Your task to perform on an android device: Go to battery settings Image 0: 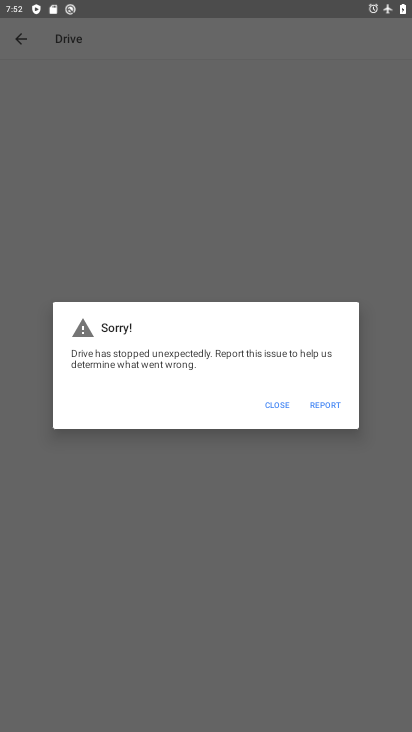
Step 0: press home button
Your task to perform on an android device: Go to battery settings Image 1: 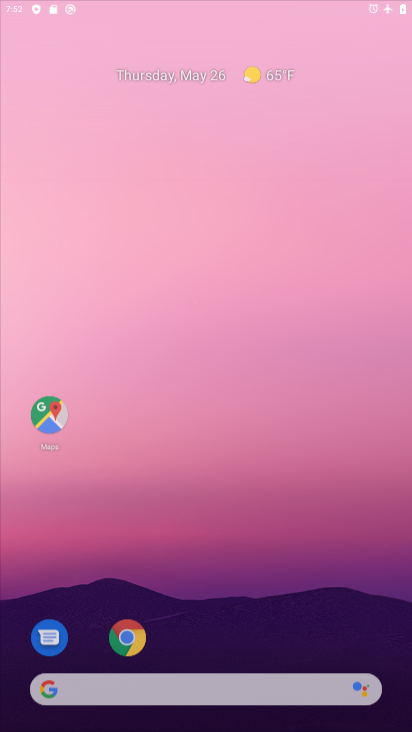
Step 1: drag from (264, 591) to (324, 148)
Your task to perform on an android device: Go to battery settings Image 2: 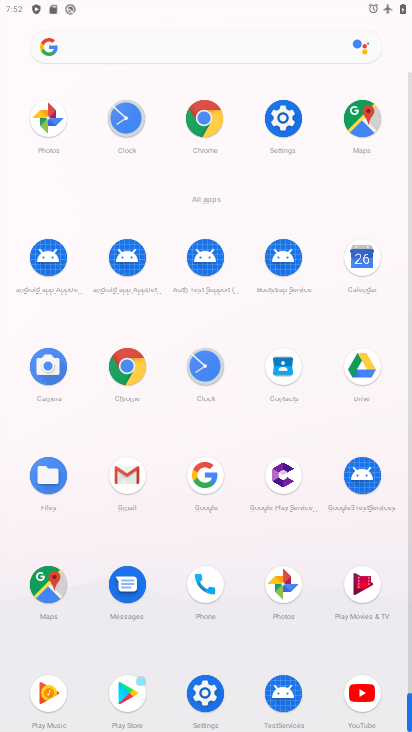
Step 2: click (204, 676)
Your task to perform on an android device: Go to battery settings Image 3: 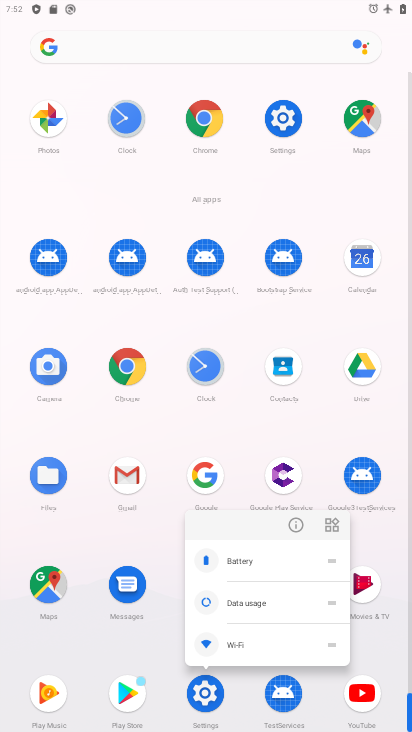
Step 3: click (295, 517)
Your task to perform on an android device: Go to battery settings Image 4: 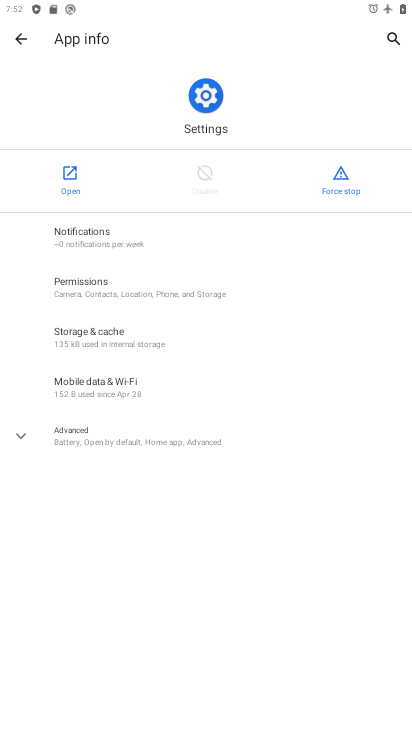
Step 4: click (66, 189)
Your task to perform on an android device: Go to battery settings Image 5: 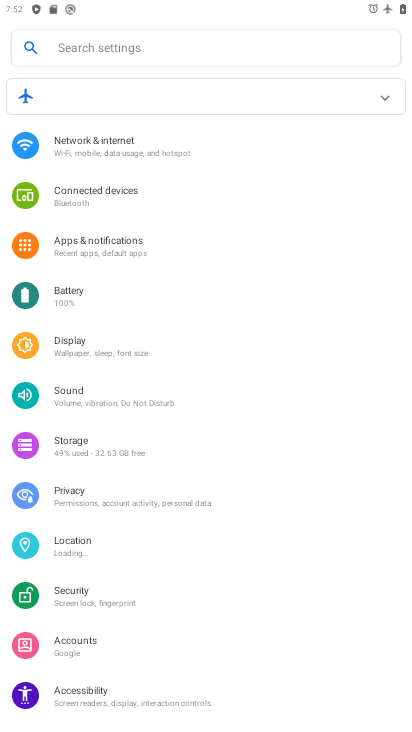
Step 5: click (80, 308)
Your task to perform on an android device: Go to battery settings Image 6: 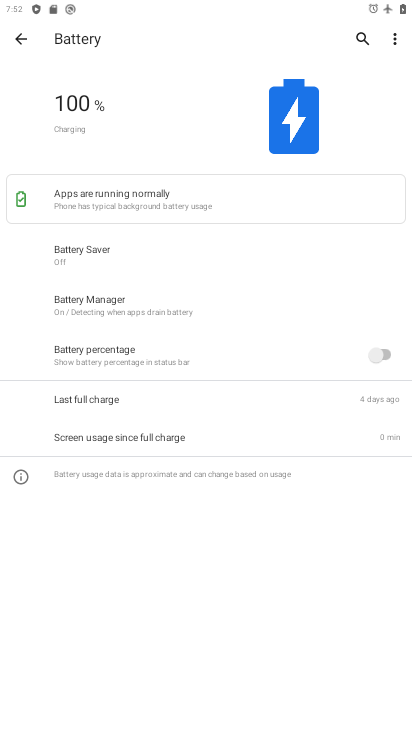
Step 6: task complete